Your task to perform on an android device: Go to internet settings Image 0: 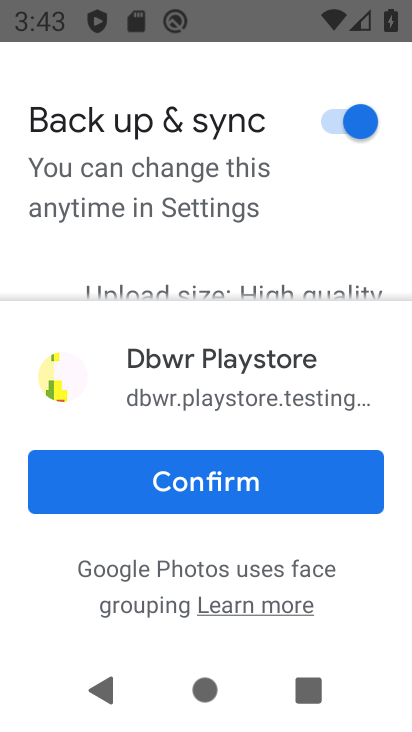
Step 0: press home button
Your task to perform on an android device: Go to internet settings Image 1: 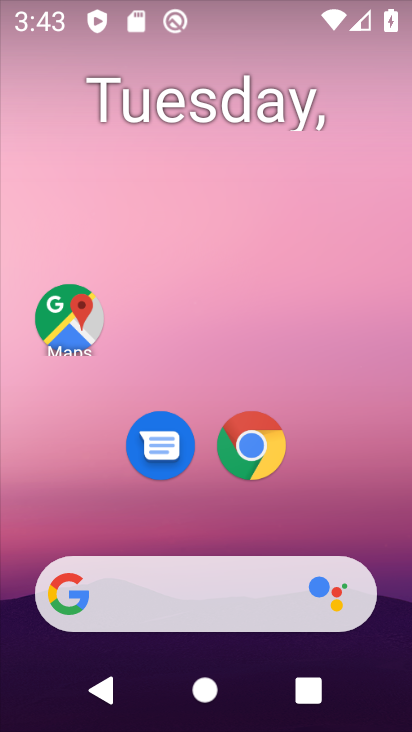
Step 1: drag from (348, 528) to (312, 144)
Your task to perform on an android device: Go to internet settings Image 2: 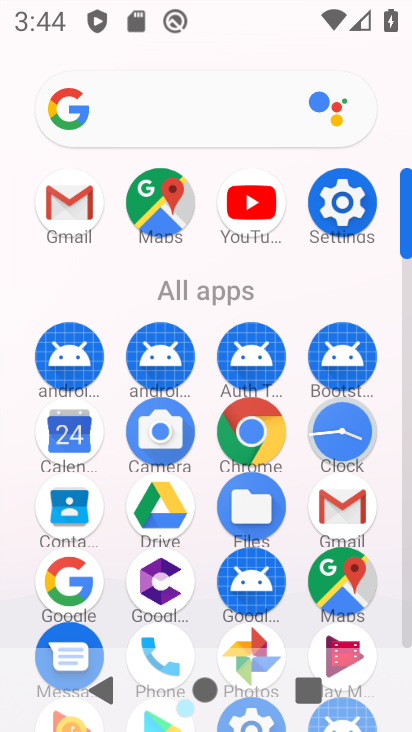
Step 2: click (345, 184)
Your task to perform on an android device: Go to internet settings Image 3: 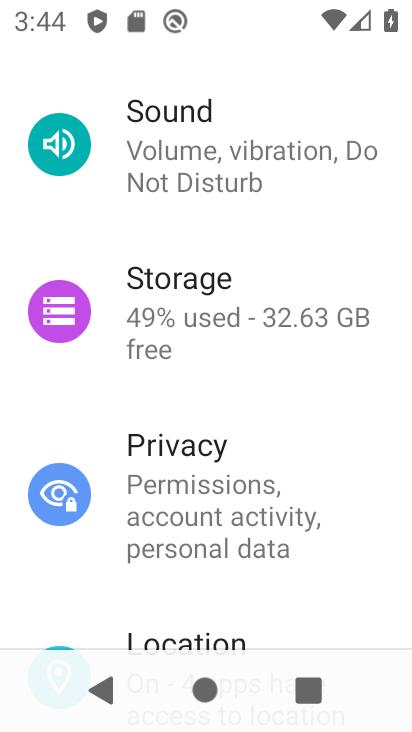
Step 3: drag from (345, 187) to (400, 520)
Your task to perform on an android device: Go to internet settings Image 4: 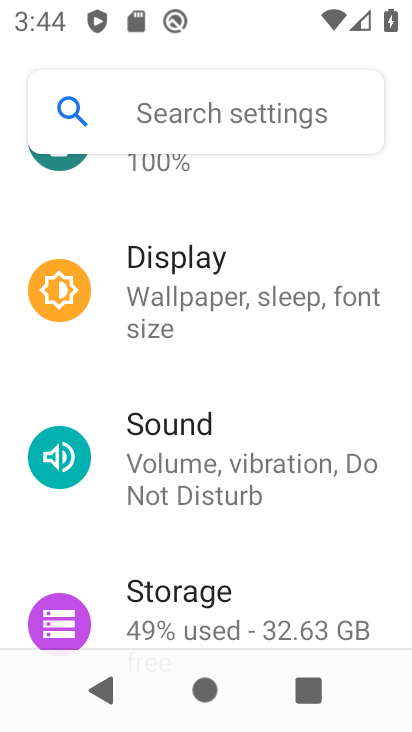
Step 4: drag from (297, 233) to (385, 462)
Your task to perform on an android device: Go to internet settings Image 5: 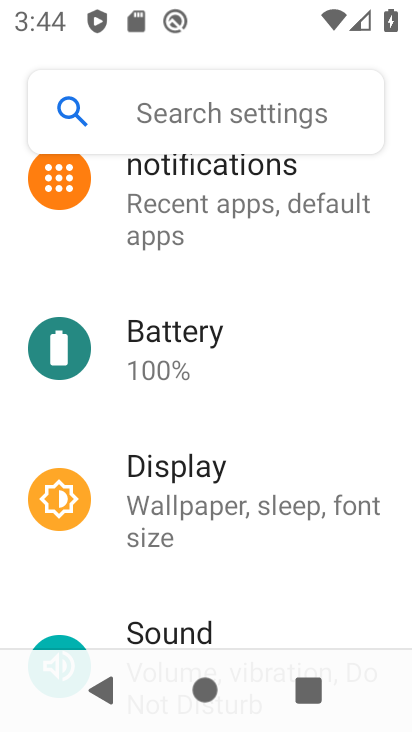
Step 5: drag from (310, 269) to (368, 419)
Your task to perform on an android device: Go to internet settings Image 6: 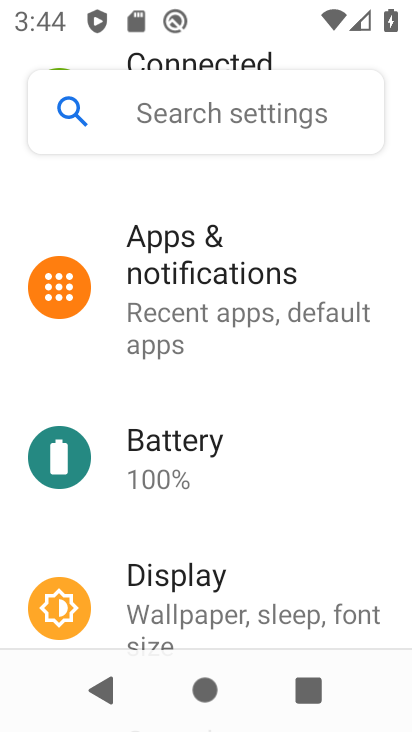
Step 6: drag from (270, 265) to (245, 697)
Your task to perform on an android device: Go to internet settings Image 7: 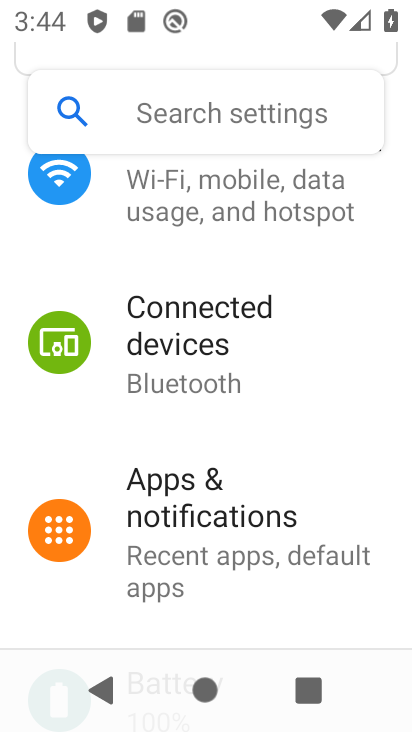
Step 7: click (169, 207)
Your task to perform on an android device: Go to internet settings Image 8: 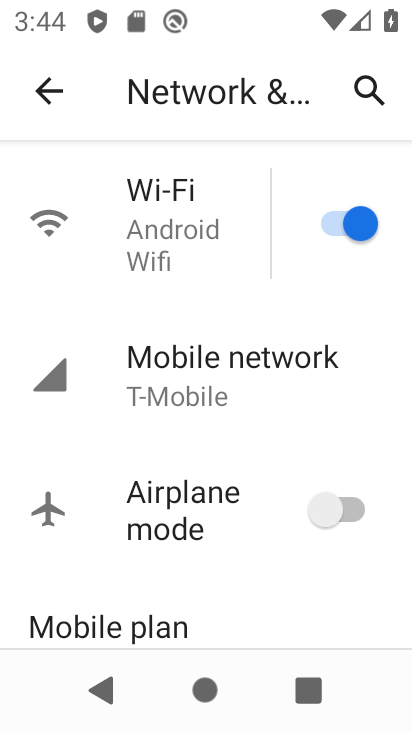
Step 8: task complete